Your task to perform on an android device: What's the weather? Image 0: 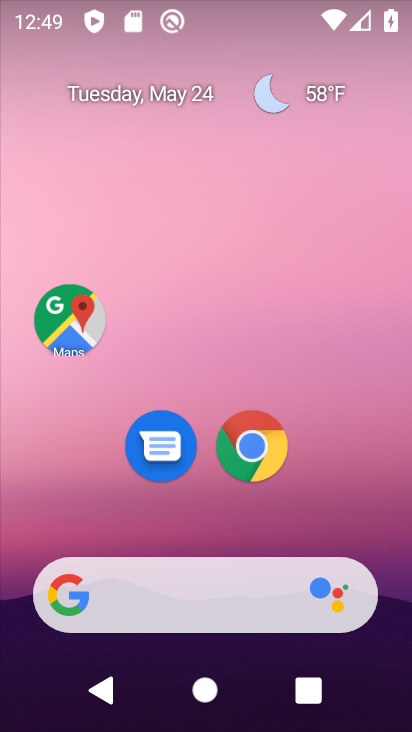
Step 0: drag from (213, 603) to (251, 140)
Your task to perform on an android device: What's the weather? Image 1: 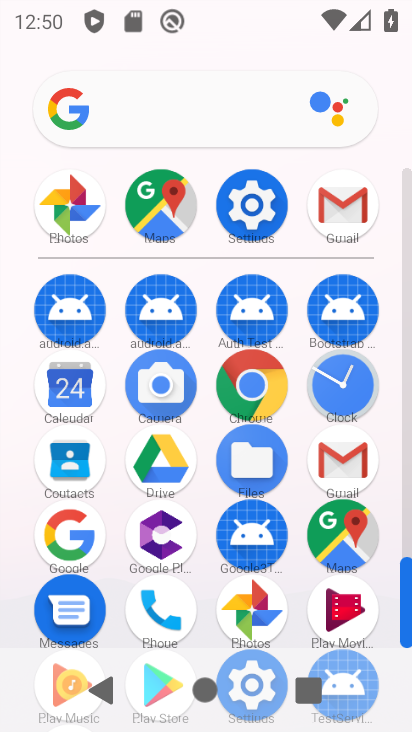
Step 1: click (70, 527)
Your task to perform on an android device: What's the weather? Image 2: 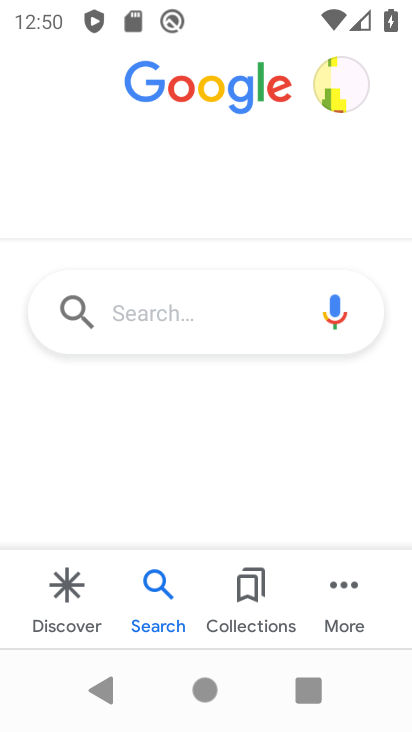
Step 2: click (235, 323)
Your task to perform on an android device: What's the weather? Image 3: 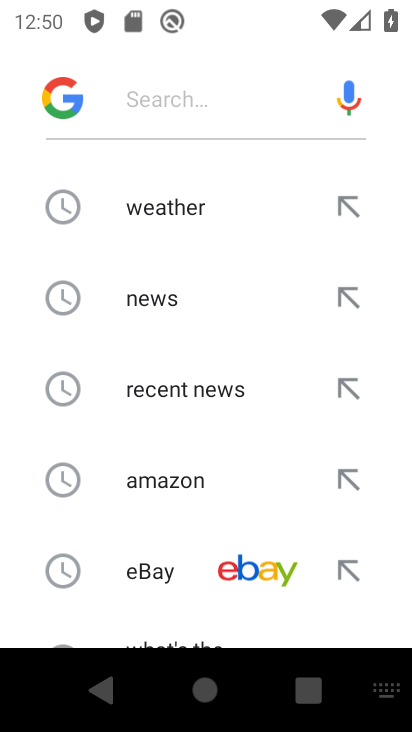
Step 3: click (196, 214)
Your task to perform on an android device: What's the weather? Image 4: 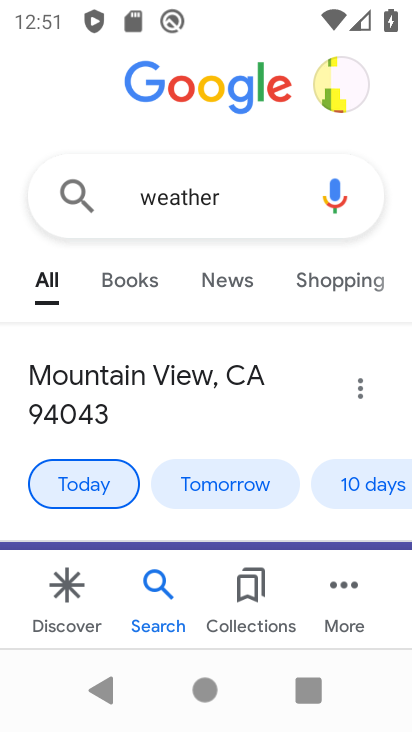
Step 4: task complete